Your task to perform on an android device: Open accessibility settings Image 0: 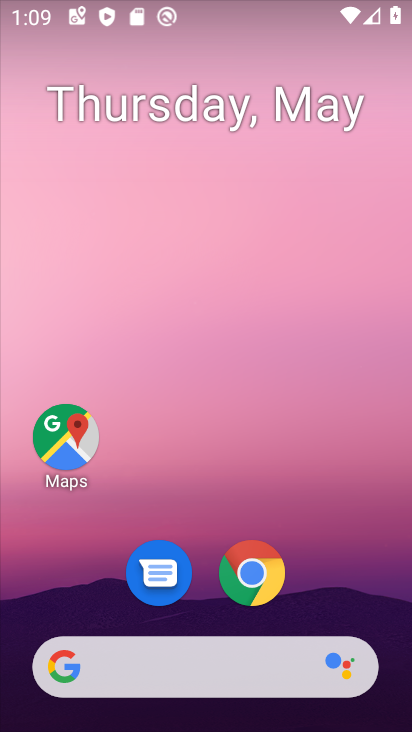
Step 0: drag from (208, 673) to (231, 183)
Your task to perform on an android device: Open accessibility settings Image 1: 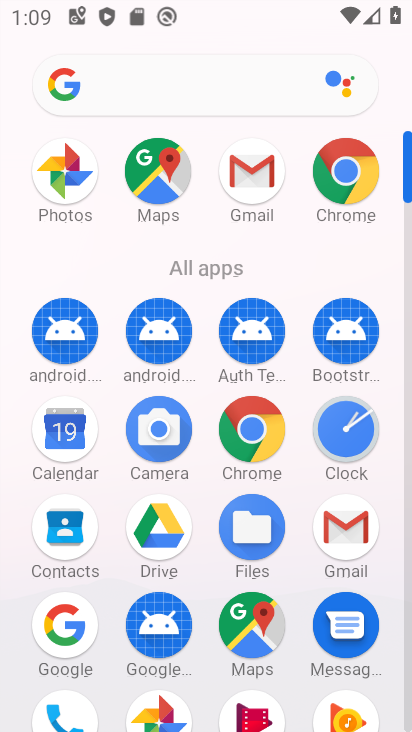
Step 1: drag from (164, 634) to (217, 202)
Your task to perform on an android device: Open accessibility settings Image 2: 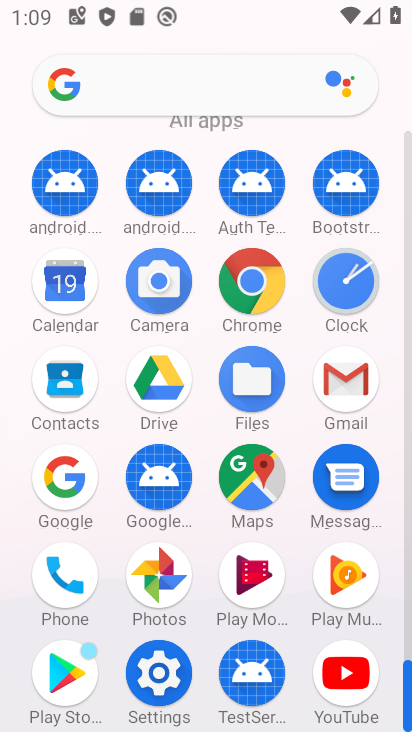
Step 2: click (159, 670)
Your task to perform on an android device: Open accessibility settings Image 3: 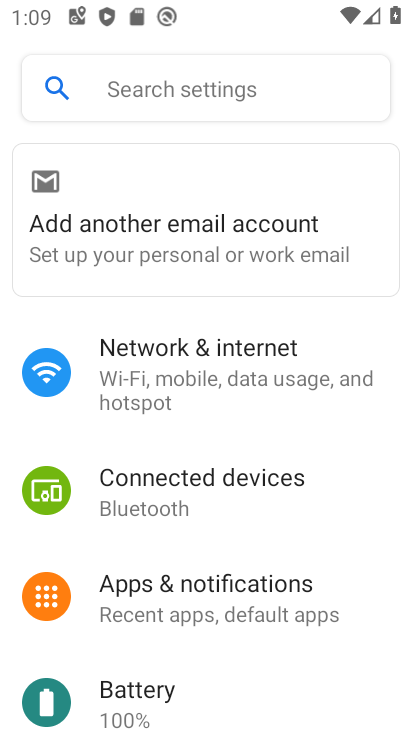
Step 3: drag from (213, 652) to (182, 147)
Your task to perform on an android device: Open accessibility settings Image 4: 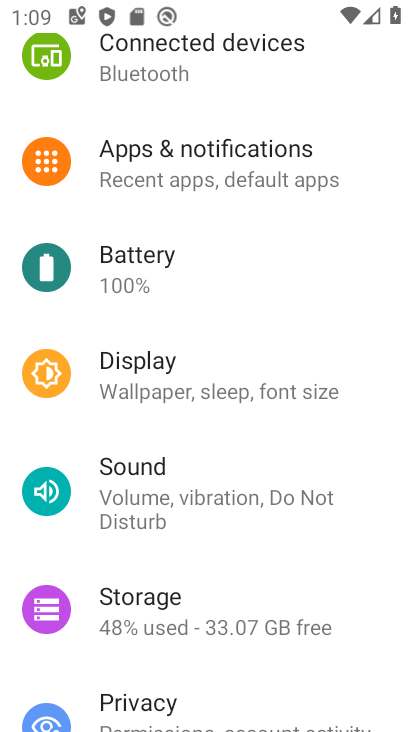
Step 4: drag from (191, 678) to (155, 164)
Your task to perform on an android device: Open accessibility settings Image 5: 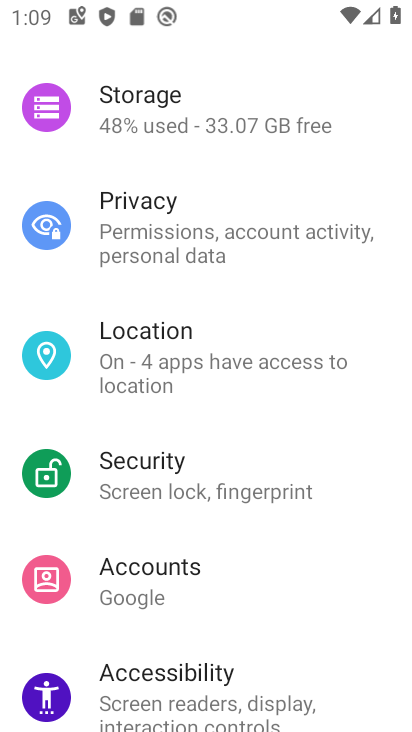
Step 5: click (217, 700)
Your task to perform on an android device: Open accessibility settings Image 6: 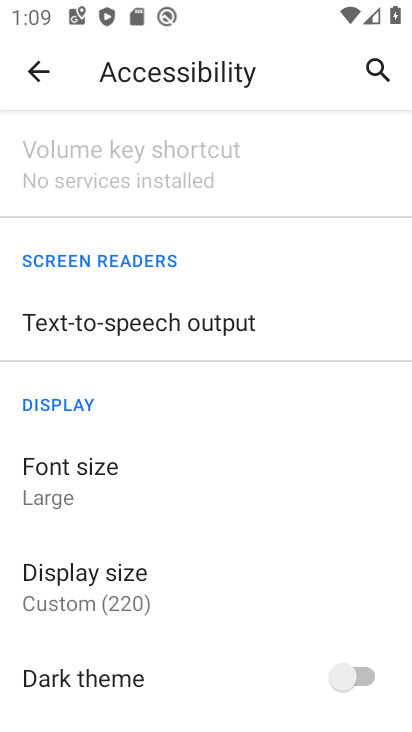
Step 6: task complete